Your task to perform on an android device: turn smart compose on in the gmail app Image 0: 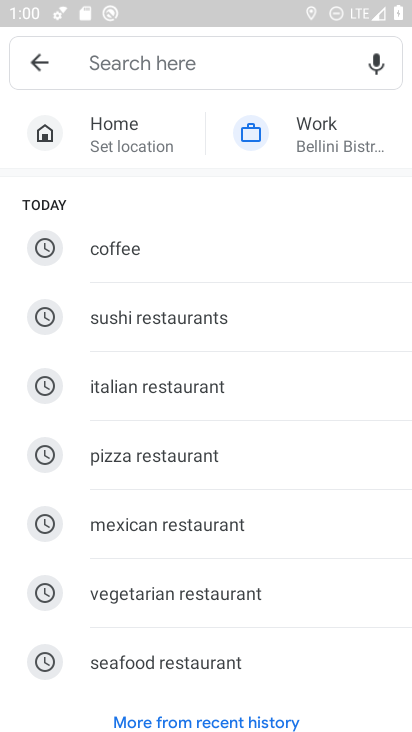
Step 0: press home button
Your task to perform on an android device: turn smart compose on in the gmail app Image 1: 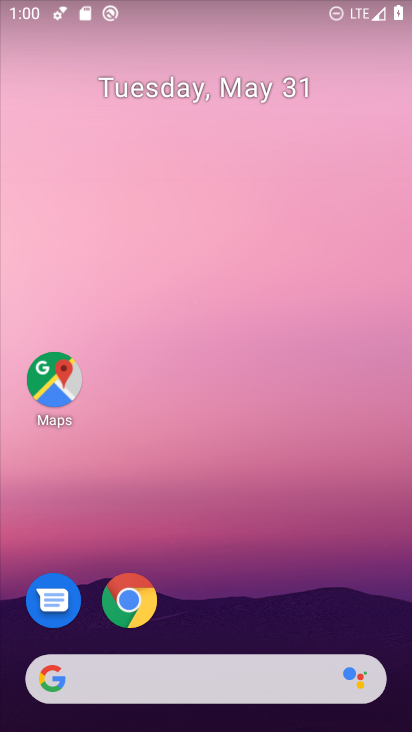
Step 1: drag from (222, 709) to (215, 41)
Your task to perform on an android device: turn smart compose on in the gmail app Image 2: 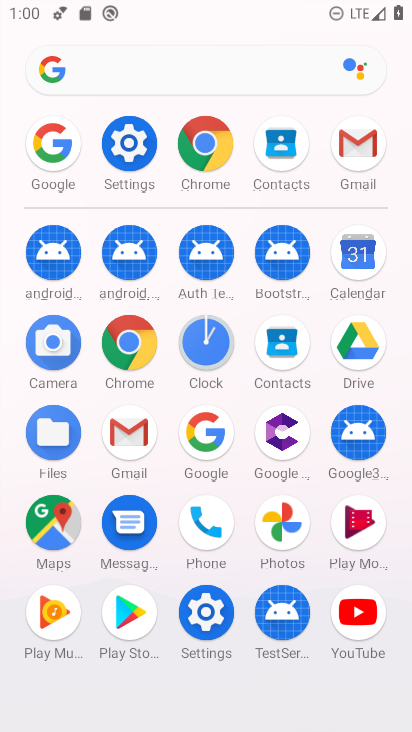
Step 2: click (132, 441)
Your task to perform on an android device: turn smart compose on in the gmail app Image 3: 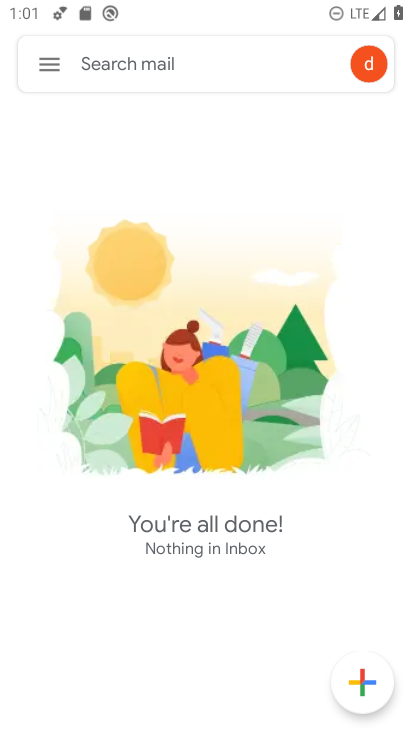
Step 3: click (50, 65)
Your task to perform on an android device: turn smart compose on in the gmail app Image 4: 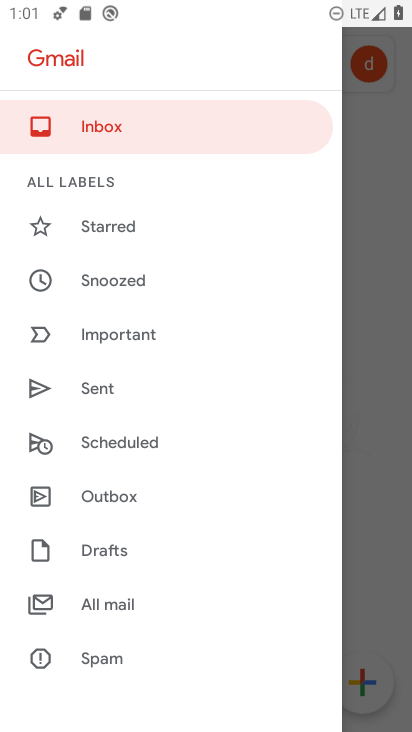
Step 4: click (129, 626)
Your task to perform on an android device: turn smart compose on in the gmail app Image 5: 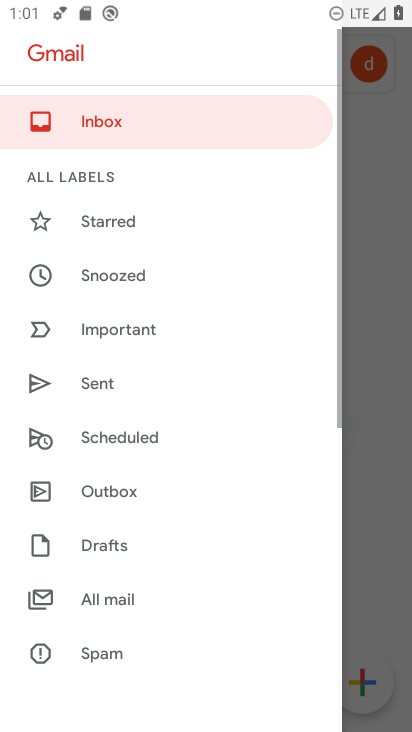
Step 5: click (122, 146)
Your task to perform on an android device: turn smart compose on in the gmail app Image 6: 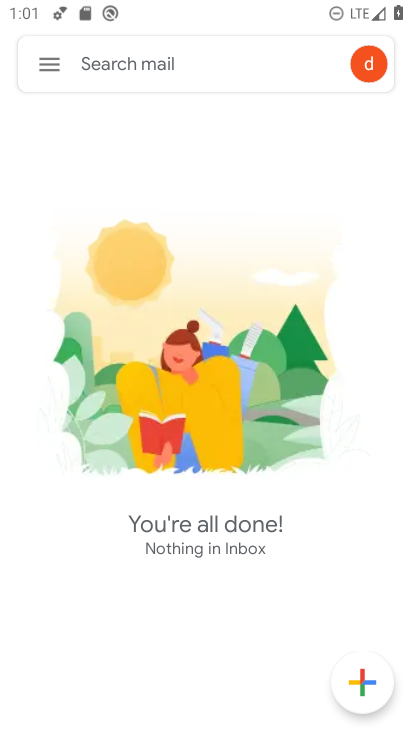
Step 6: click (49, 64)
Your task to perform on an android device: turn smart compose on in the gmail app Image 7: 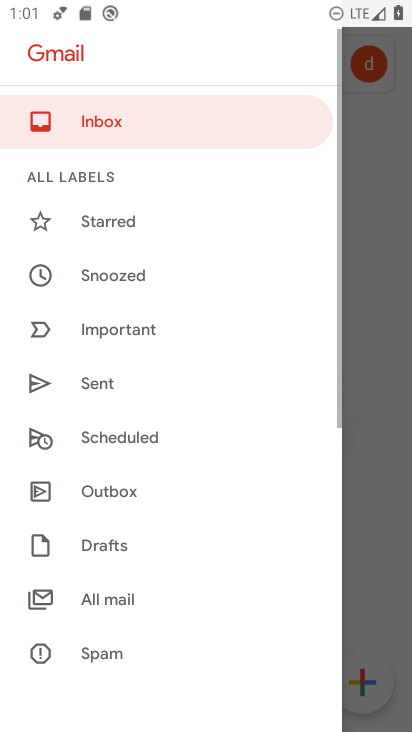
Step 7: drag from (124, 671) to (124, 608)
Your task to perform on an android device: turn smart compose on in the gmail app Image 8: 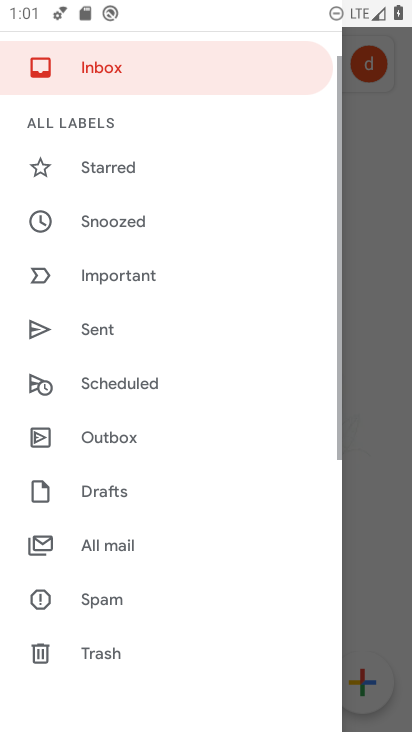
Step 8: drag from (122, 347) to (124, 212)
Your task to perform on an android device: turn smart compose on in the gmail app Image 9: 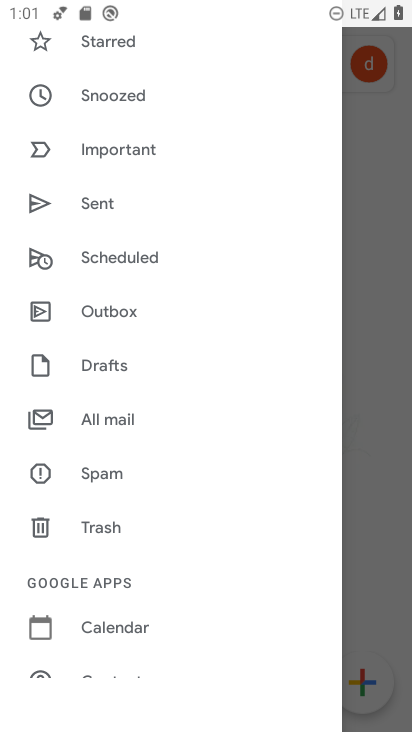
Step 9: drag from (114, 656) to (114, 614)
Your task to perform on an android device: turn smart compose on in the gmail app Image 10: 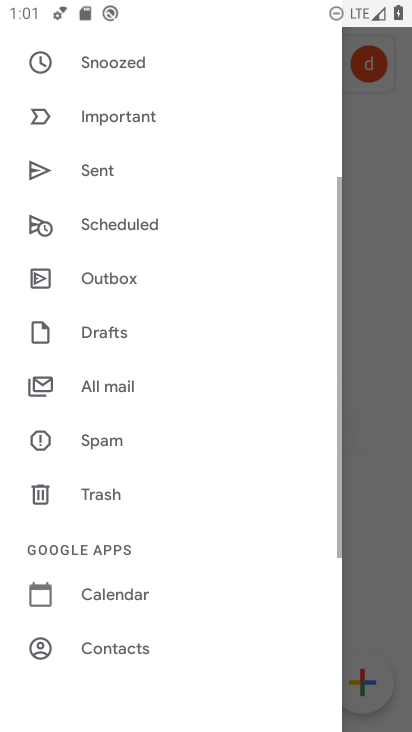
Step 10: drag from (114, 427) to (114, 161)
Your task to perform on an android device: turn smart compose on in the gmail app Image 11: 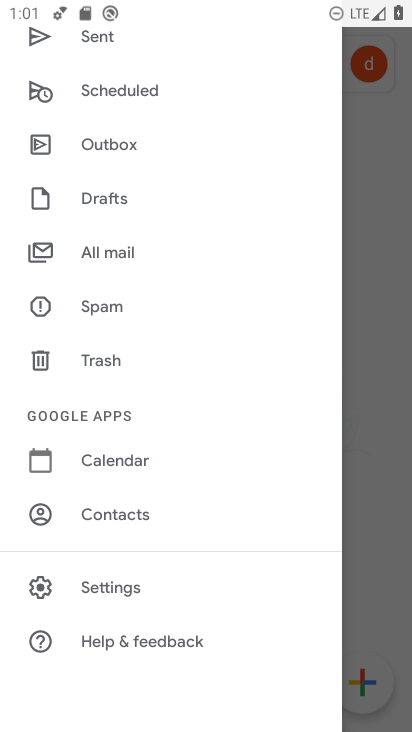
Step 11: click (110, 587)
Your task to perform on an android device: turn smart compose on in the gmail app Image 12: 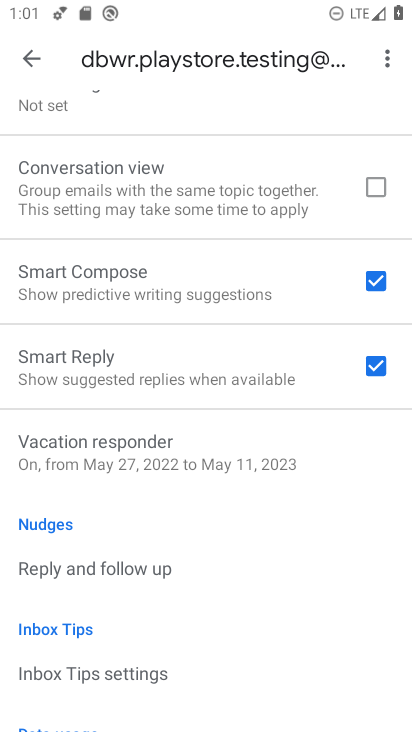
Step 12: task complete